Your task to perform on an android device: Open calendar and show me the second week of next month Image 0: 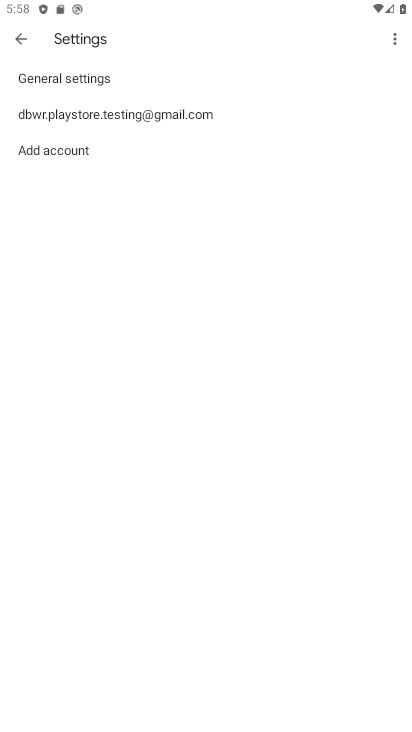
Step 0: press home button
Your task to perform on an android device: Open calendar and show me the second week of next month Image 1: 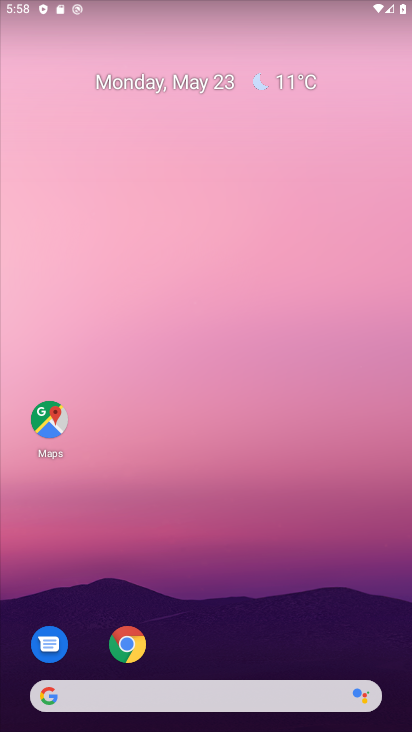
Step 1: drag from (233, 647) to (202, 402)
Your task to perform on an android device: Open calendar and show me the second week of next month Image 2: 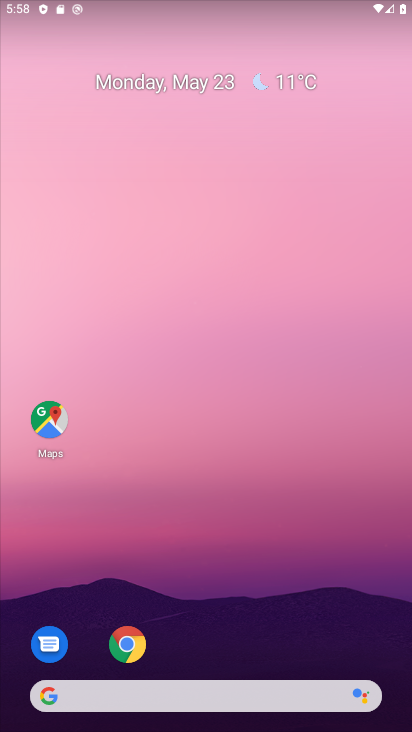
Step 2: drag from (197, 632) to (220, 244)
Your task to perform on an android device: Open calendar and show me the second week of next month Image 3: 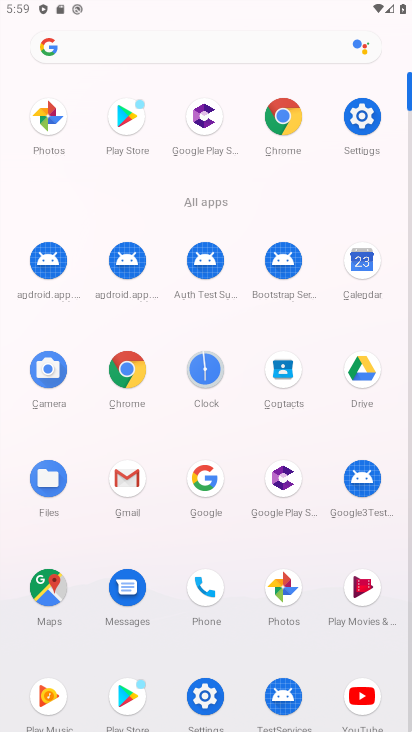
Step 3: drag from (229, 639) to (215, 499)
Your task to perform on an android device: Open calendar and show me the second week of next month Image 4: 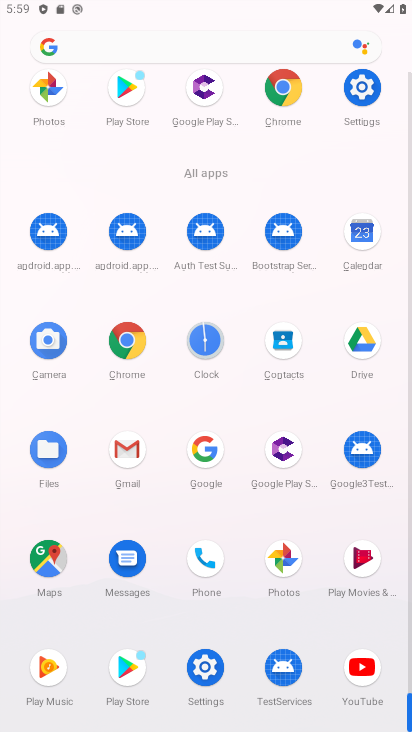
Step 4: click (349, 257)
Your task to perform on an android device: Open calendar and show me the second week of next month Image 5: 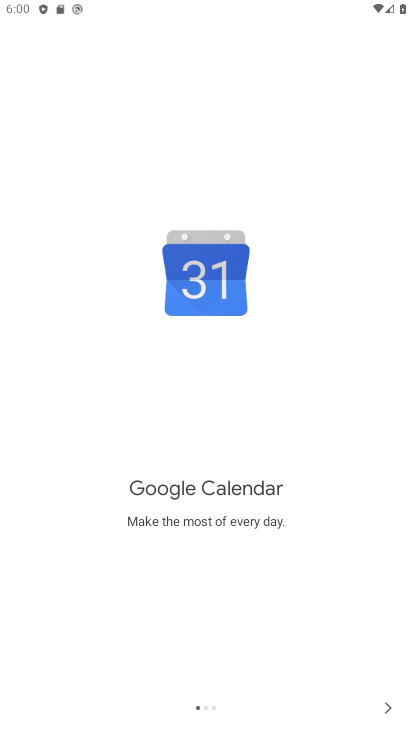
Step 5: click (387, 712)
Your task to perform on an android device: Open calendar and show me the second week of next month Image 6: 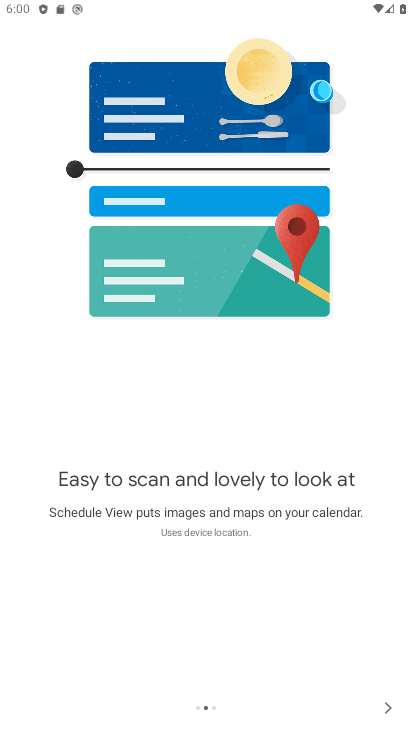
Step 6: click (387, 712)
Your task to perform on an android device: Open calendar and show me the second week of next month Image 7: 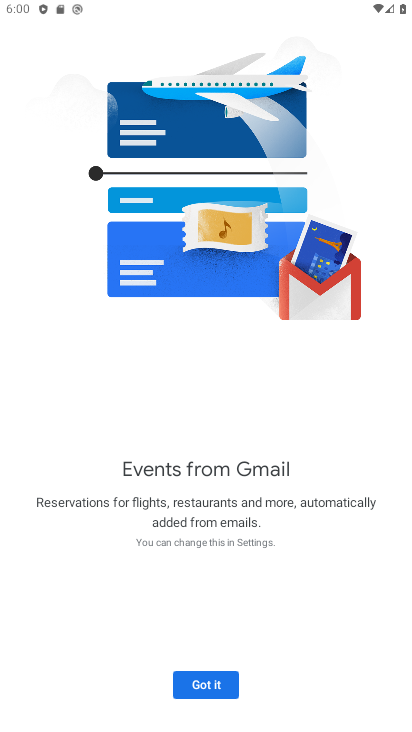
Step 7: click (228, 683)
Your task to perform on an android device: Open calendar and show me the second week of next month Image 8: 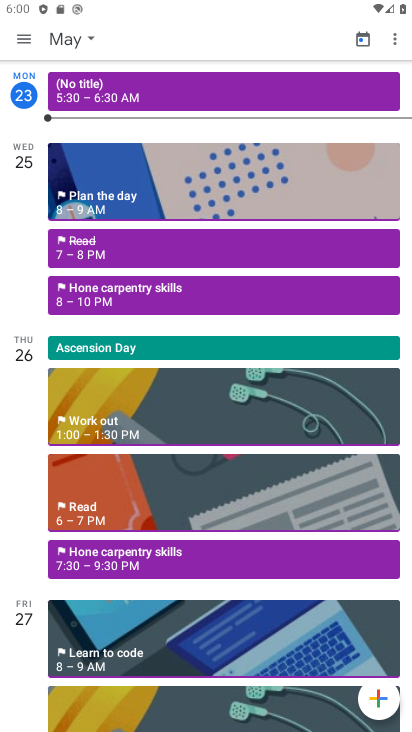
Step 8: click (69, 53)
Your task to perform on an android device: Open calendar and show me the second week of next month Image 9: 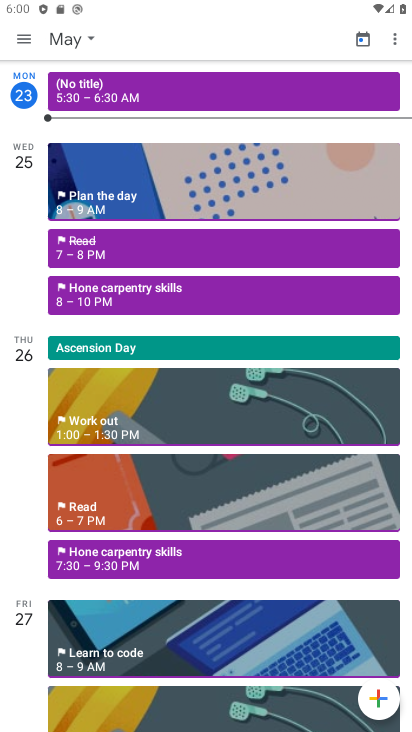
Step 9: click (77, 47)
Your task to perform on an android device: Open calendar and show me the second week of next month Image 10: 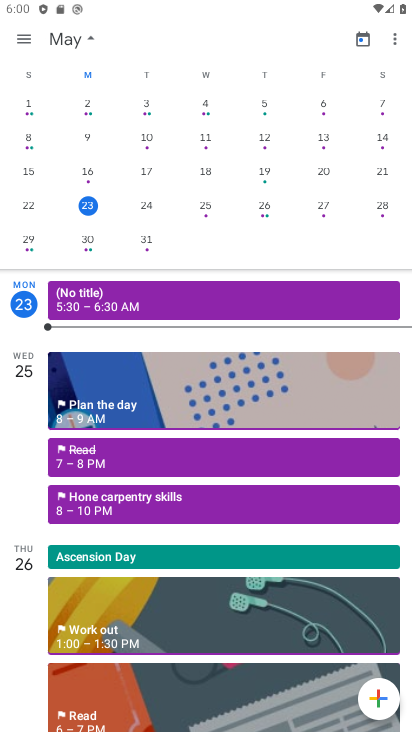
Step 10: drag from (339, 128) to (4, 137)
Your task to perform on an android device: Open calendar and show me the second week of next month Image 11: 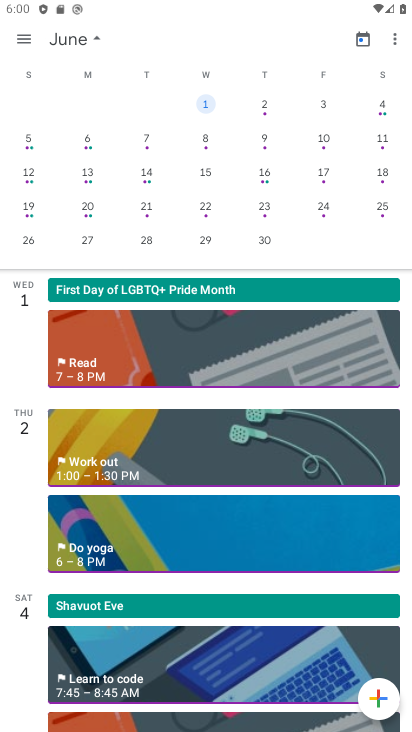
Step 11: click (29, 173)
Your task to perform on an android device: Open calendar and show me the second week of next month Image 12: 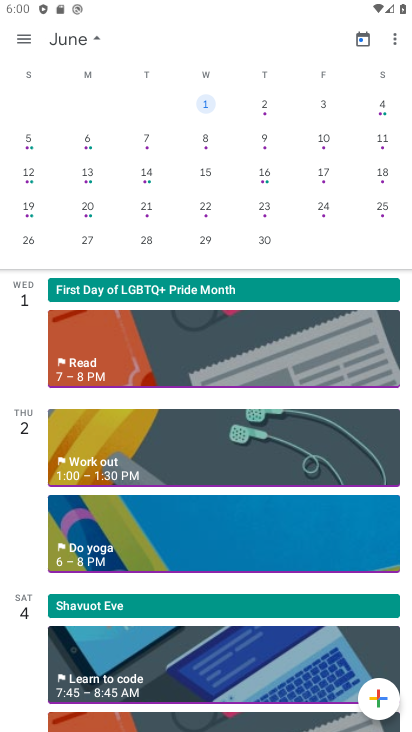
Step 12: click (29, 173)
Your task to perform on an android device: Open calendar and show me the second week of next month Image 13: 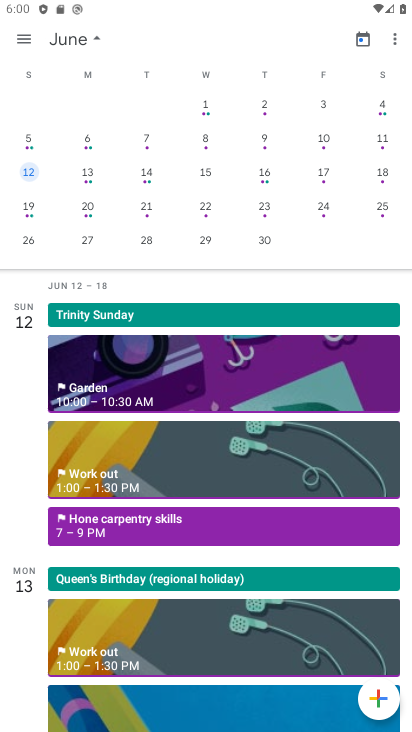
Step 13: click (32, 45)
Your task to perform on an android device: Open calendar and show me the second week of next month Image 14: 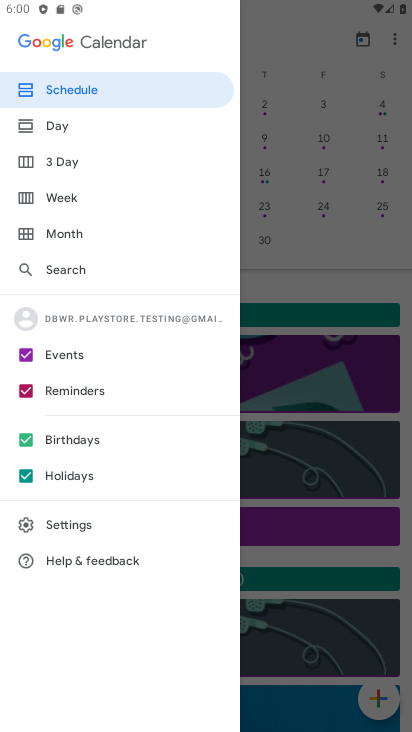
Step 14: click (82, 195)
Your task to perform on an android device: Open calendar and show me the second week of next month Image 15: 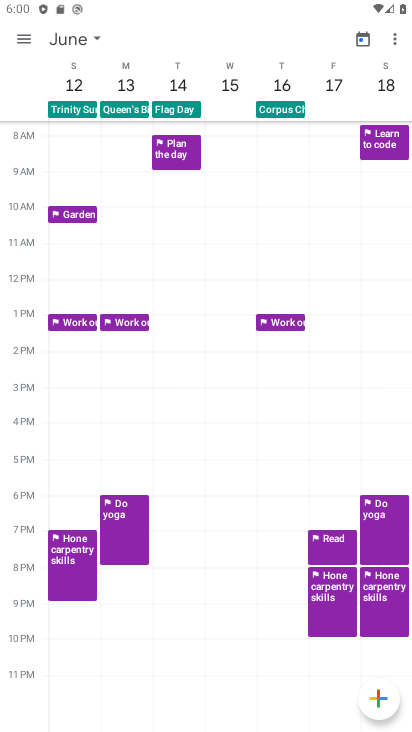
Step 15: task complete